Your task to perform on an android device: all mails in gmail Image 0: 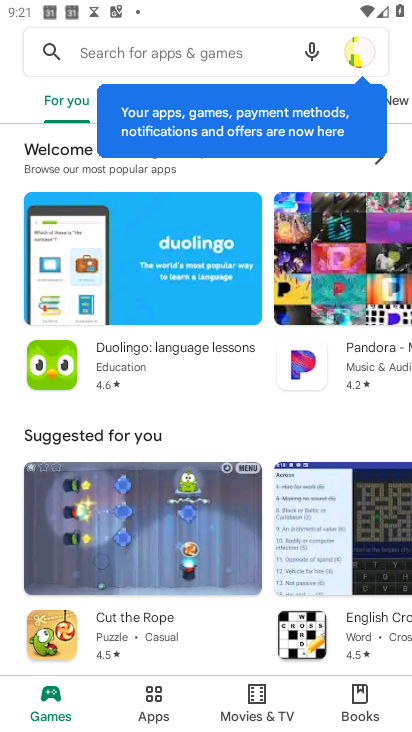
Step 0: press home button
Your task to perform on an android device: all mails in gmail Image 1: 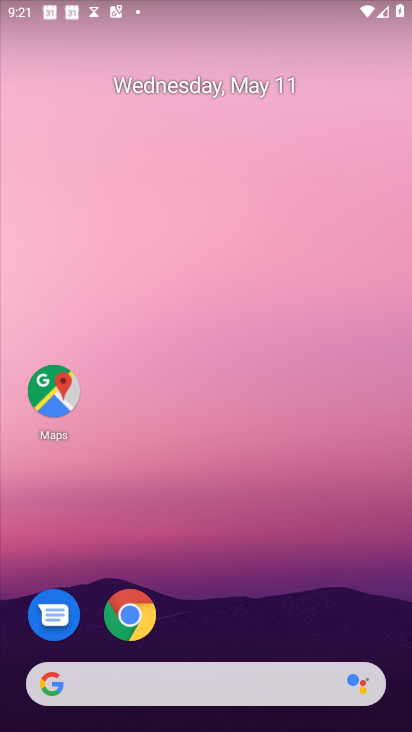
Step 1: drag from (32, 548) to (245, 111)
Your task to perform on an android device: all mails in gmail Image 2: 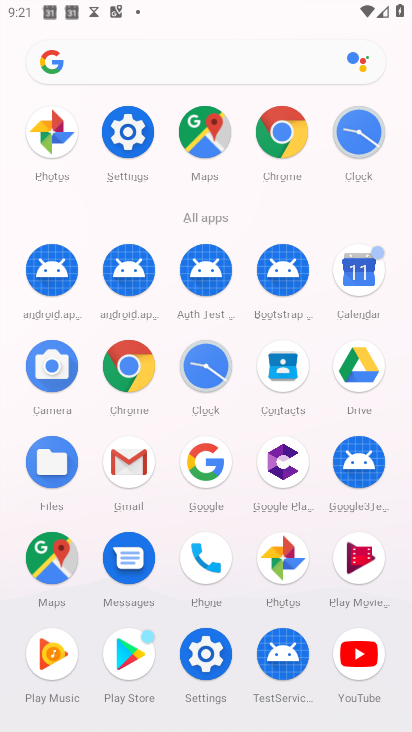
Step 2: click (132, 459)
Your task to perform on an android device: all mails in gmail Image 3: 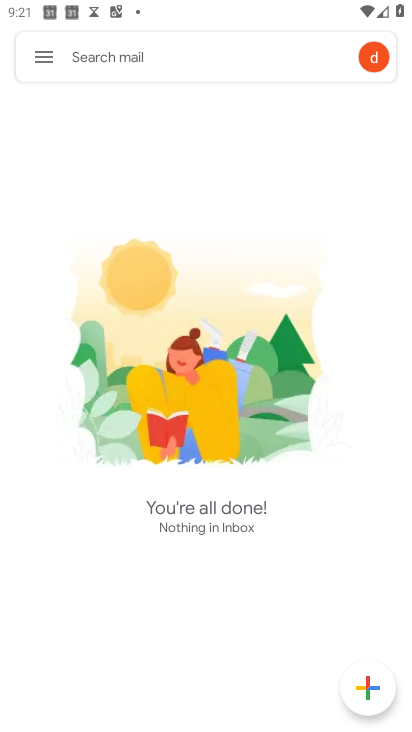
Step 3: click (49, 52)
Your task to perform on an android device: all mails in gmail Image 4: 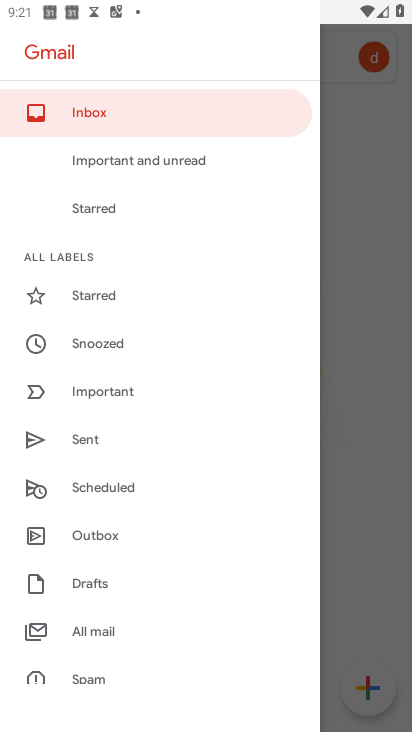
Step 4: click (66, 640)
Your task to perform on an android device: all mails in gmail Image 5: 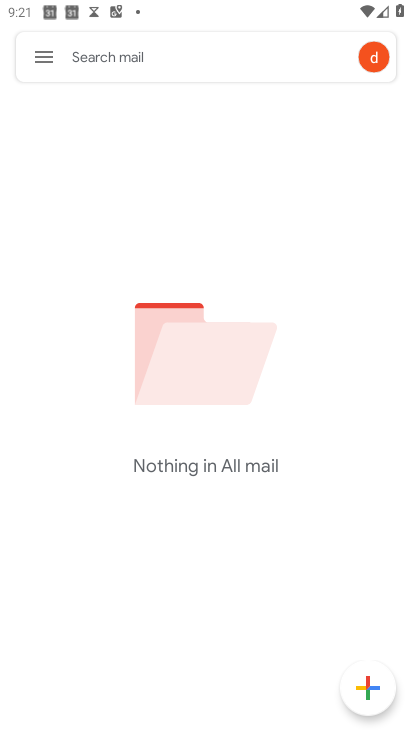
Step 5: task complete